Your task to perform on an android device: Open wifi settings Image 0: 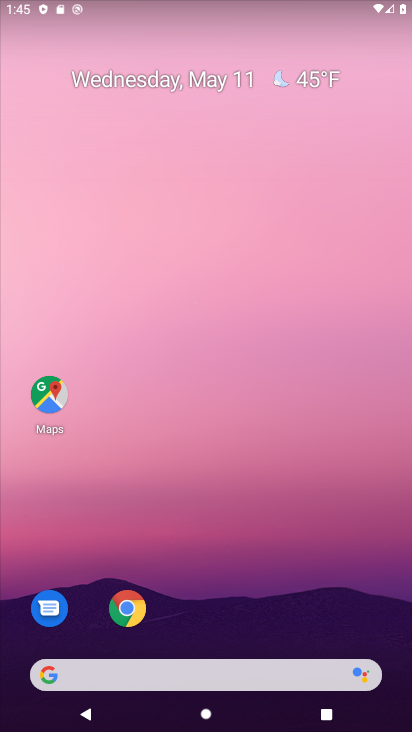
Step 0: drag from (249, 596) to (197, 96)
Your task to perform on an android device: Open wifi settings Image 1: 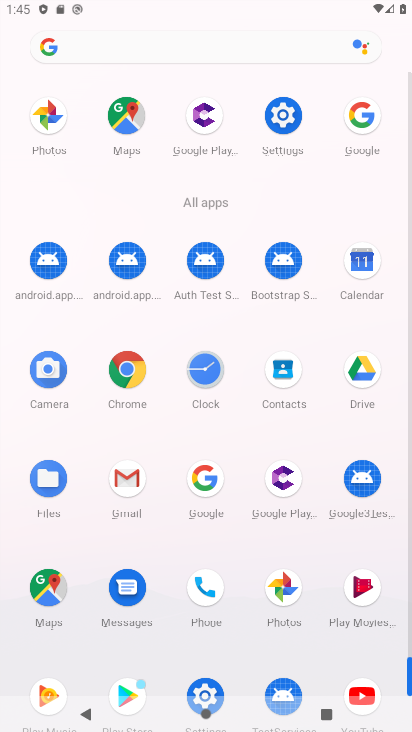
Step 1: click (284, 102)
Your task to perform on an android device: Open wifi settings Image 2: 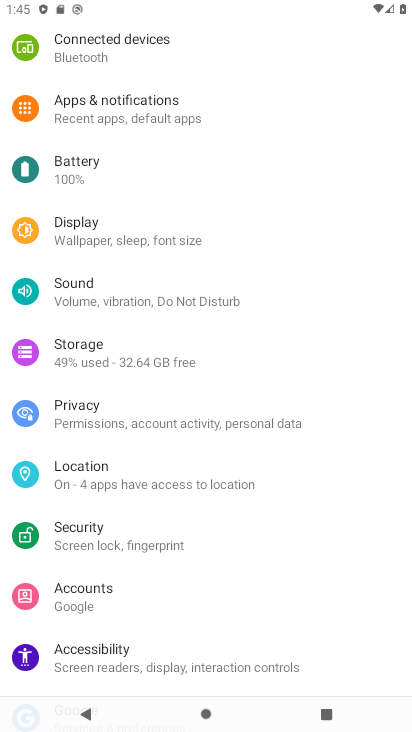
Step 2: drag from (122, 106) to (193, 603)
Your task to perform on an android device: Open wifi settings Image 3: 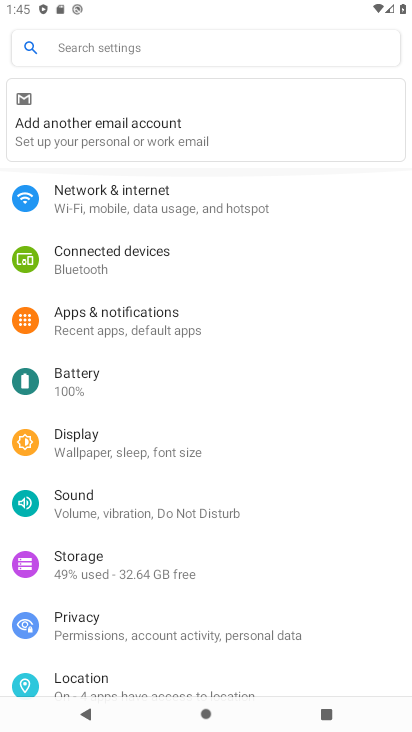
Step 3: click (125, 197)
Your task to perform on an android device: Open wifi settings Image 4: 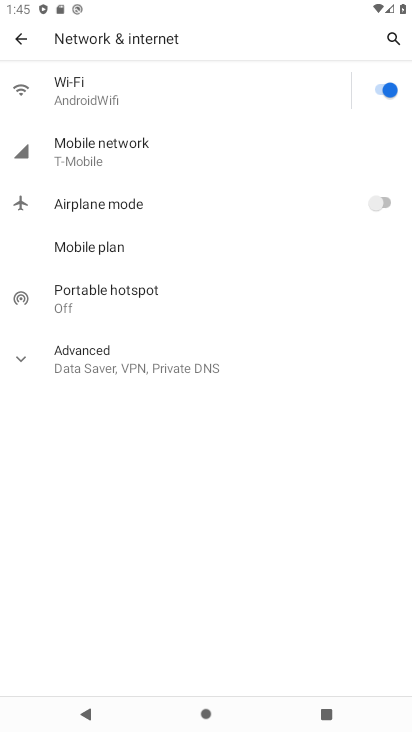
Step 4: click (198, 81)
Your task to perform on an android device: Open wifi settings Image 5: 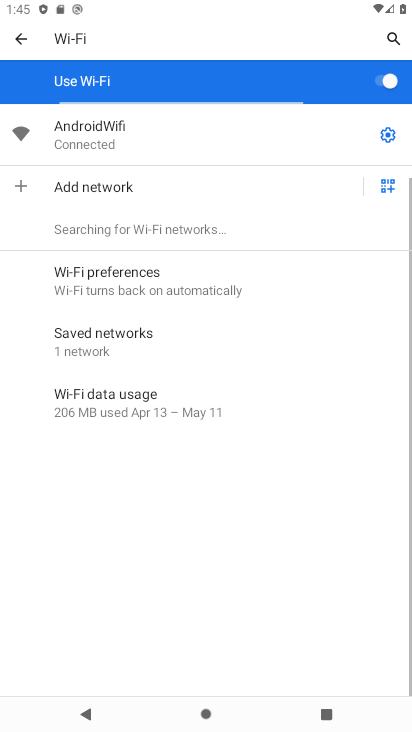
Step 5: click (385, 138)
Your task to perform on an android device: Open wifi settings Image 6: 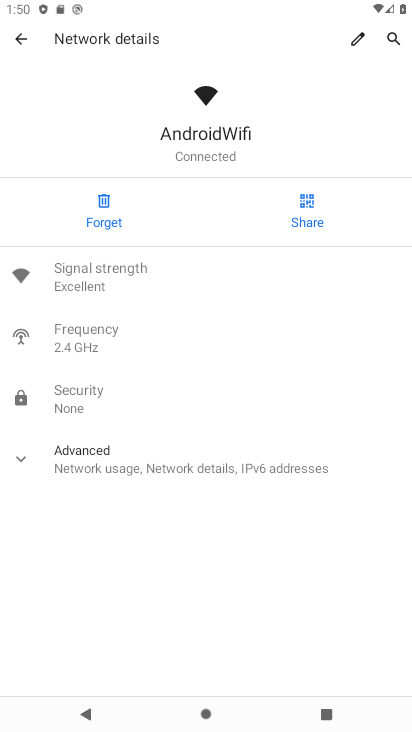
Step 6: task complete